Your task to perform on an android device: Go to accessibility settings Image 0: 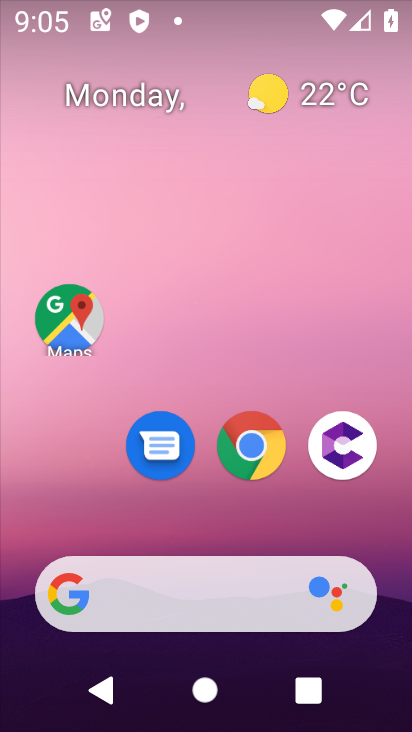
Step 0: drag from (212, 533) to (294, 0)
Your task to perform on an android device: Go to accessibility settings Image 1: 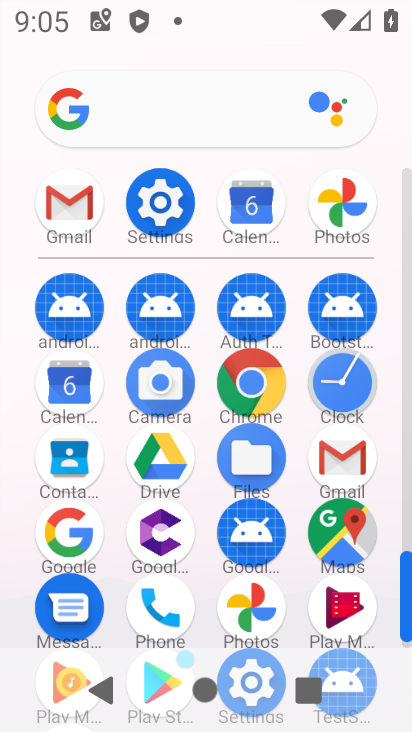
Step 1: click (165, 212)
Your task to perform on an android device: Go to accessibility settings Image 2: 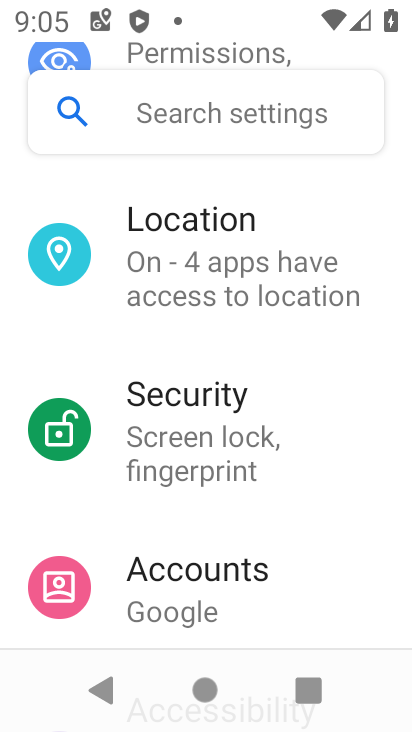
Step 2: drag from (286, 554) to (335, 118)
Your task to perform on an android device: Go to accessibility settings Image 3: 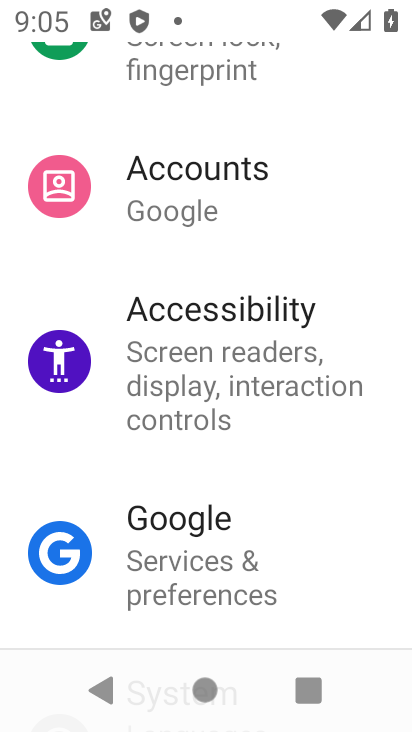
Step 3: click (196, 313)
Your task to perform on an android device: Go to accessibility settings Image 4: 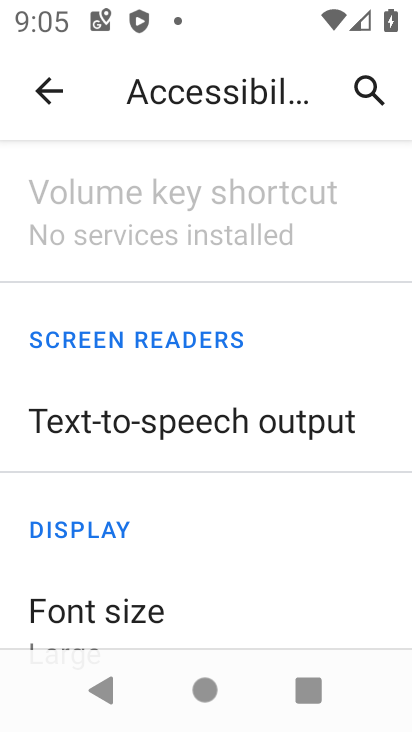
Step 4: task complete